Your task to perform on an android device: turn on translation in the chrome app Image 0: 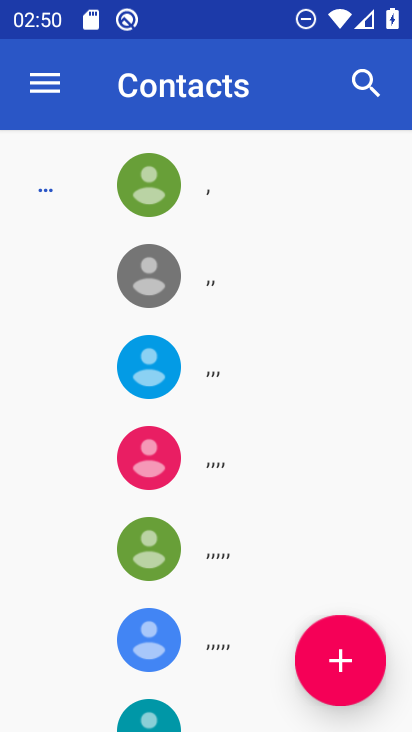
Step 0: press home button
Your task to perform on an android device: turn on translation in the chrome app Image 1: 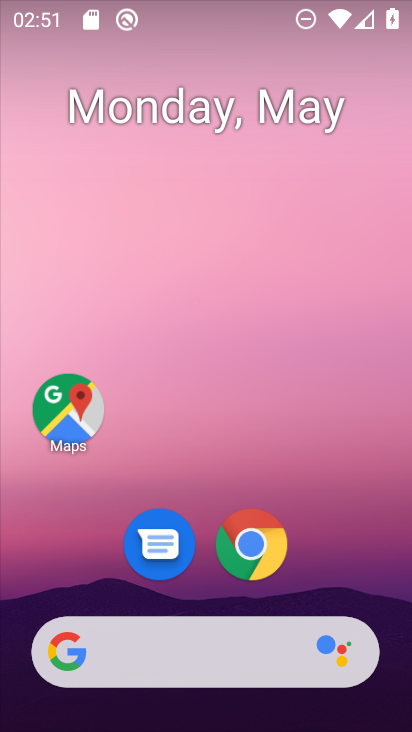
Step 1: drag from (334, 569) to (362, 103)
Your task to perform on an android device: turn on translation in the chrome app Image 2: 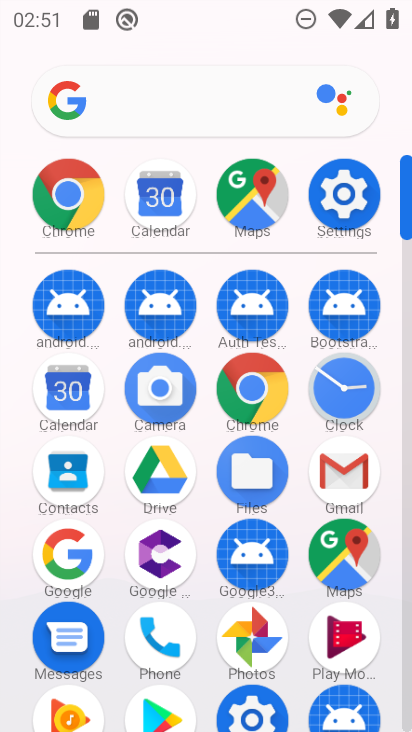
Step 2: click (265, 369)
Your task to perform on an android device: turn on translation in the chrome app Image 3: 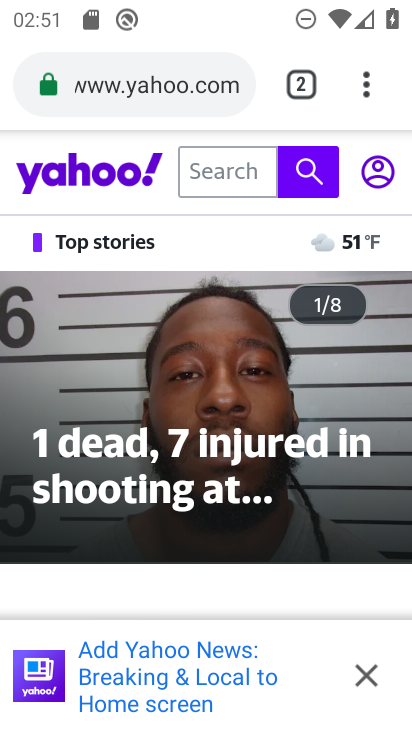
Step 3: click (366, 94)
Your task to perform on an android device: turn on translation in the chrome app Image 4: 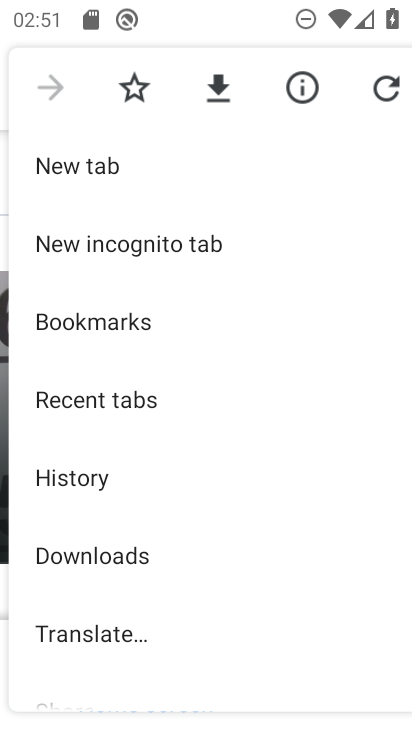
Step 4: drag from (317, 455) to (339, 350)
Your task to perform on an android device: turn on translation in the chrome app Image 5: 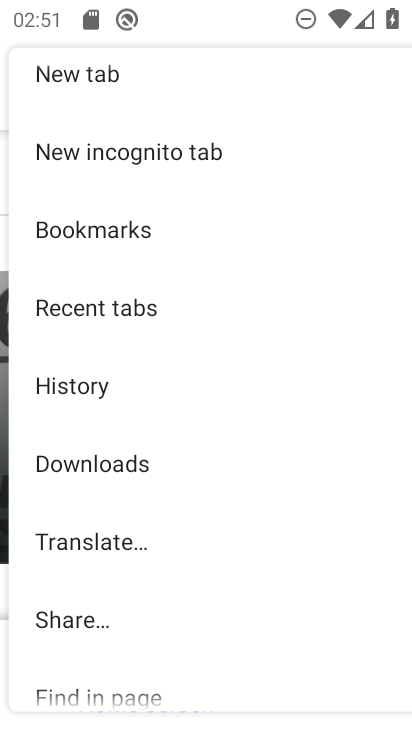
Step 5: drag from (319, 497) to (328, 355)
Your task to perform on an android device: turn on translation in the chrome app Image 6: 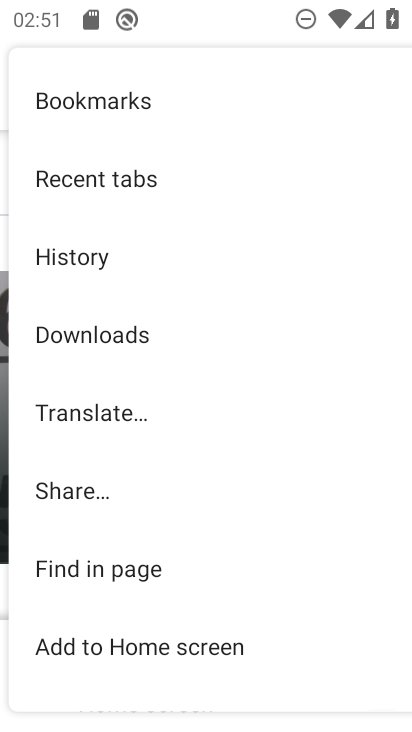
Step 6: drag from (291, 499) to (290, 359)
Your task to perform on an android device: turn on translation in the chrome app Image 7: 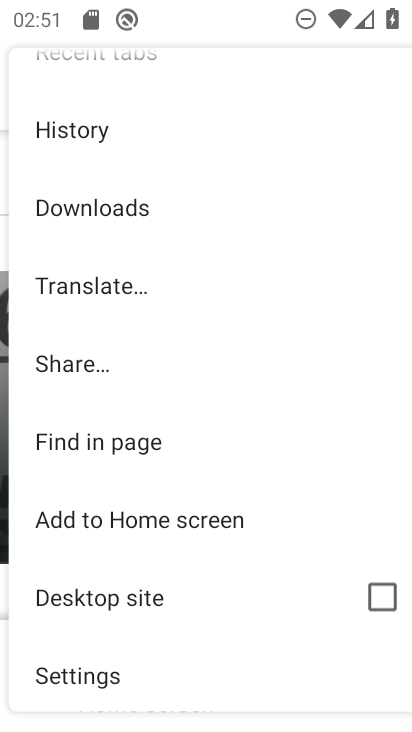
Step 7: drag from (291, 494) to (299, 262)
Your task to perform on an android device: turn on translation in the chrome app Image 8: 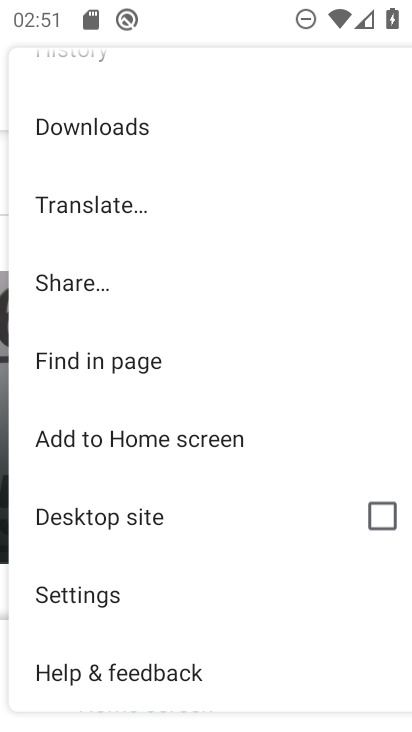
Step 8: click (102, 614)
Your task to perform on an android device: turn on translation in the chrome app Image 9: 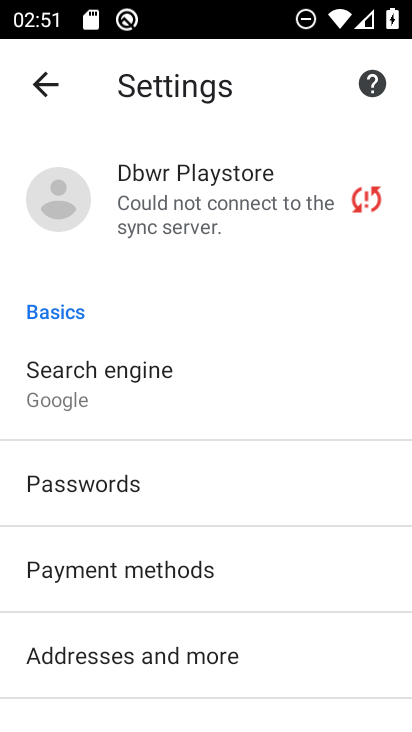
Step 9: drag from (319, 588) to (326, 448)
Your task to perform on an android device: turn on translation in the chrome app Image 10: 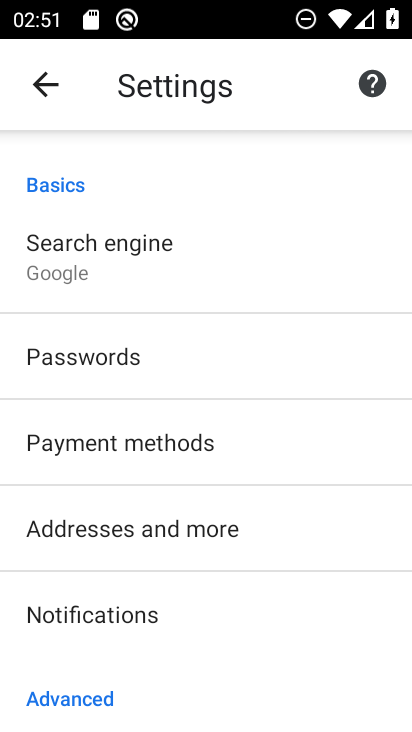
Step 10: drag from (304, 598) to (310, 494)
Your task to perform on an android device: turn on translation in the chrome app Image 11: 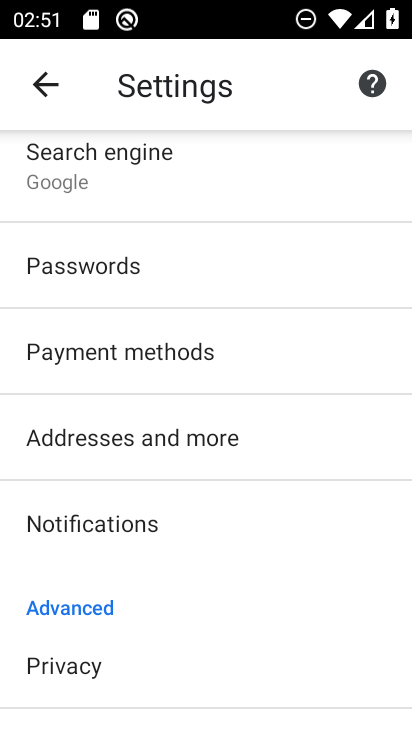
Step 11: drag from (308, 592) to (315, 497)
Your task to perform on an android device: turn on translation in the chrome app Image 12: 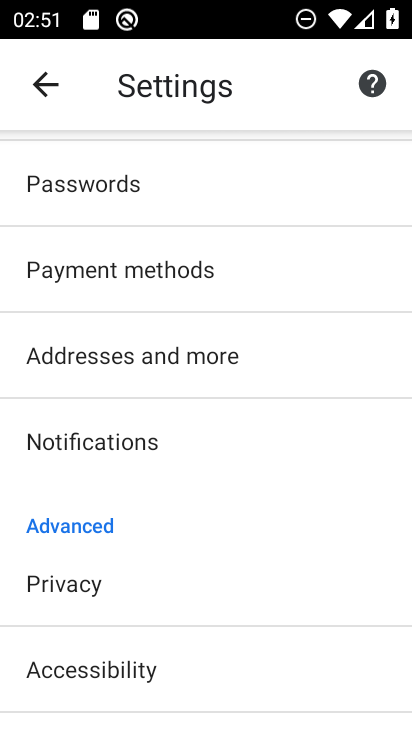
Step 12: drag from (314, 629) to (320, 514)
Your task to perform on an android device: turn on translation in the chrome app Image 13: 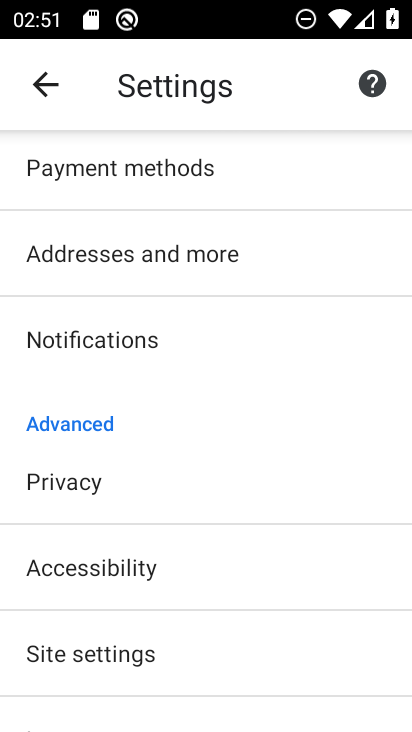
Step 13: drag from (311, 618) to (311, 518)
Your task to perform on an android device: turn on translation in the chrome app Image 14: 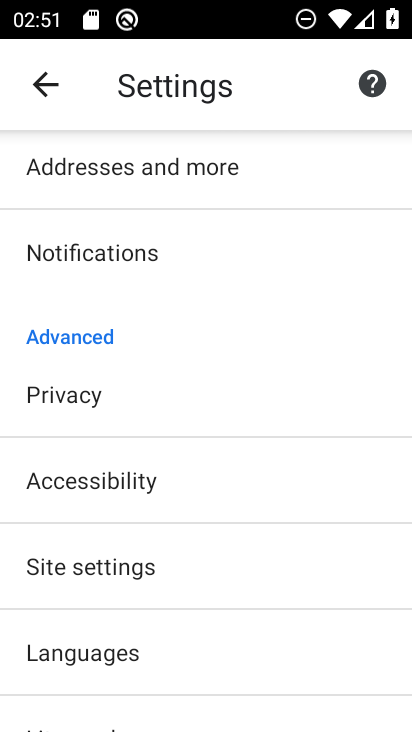
Step 14: drag from (313, 629) to (323, 461)
Your task to perform on an android device: turn on translation in the chrome app Image 15: 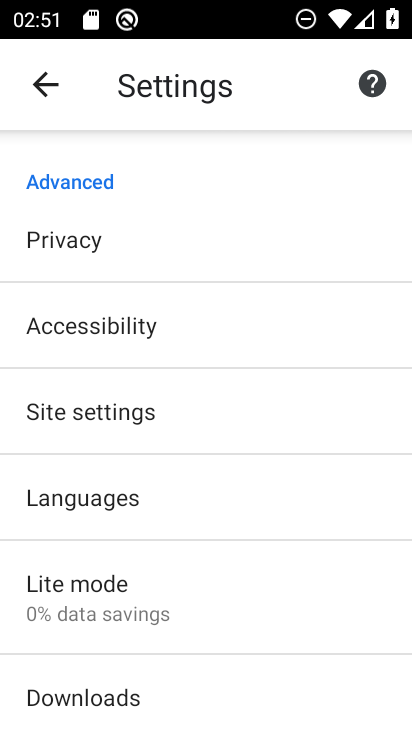
Step 15: drag from (323, 610) to (325, 480)
Your task to perform on an android device: turn on translation in the chrome app Image 16: 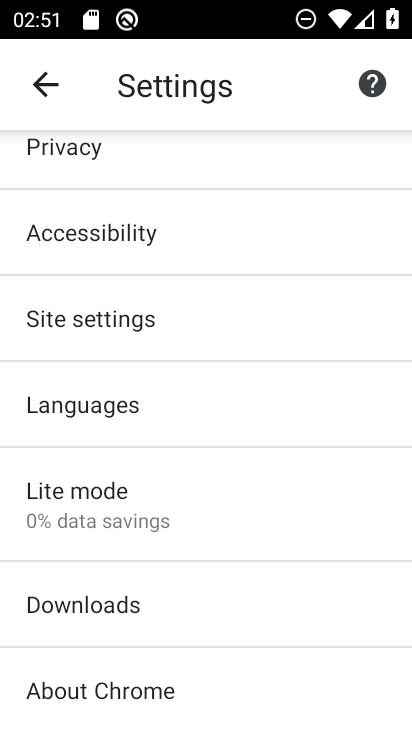
Step 16: click (199, 410)
Your task to perform on an android device: turn on translation in the chrome app Image 17: 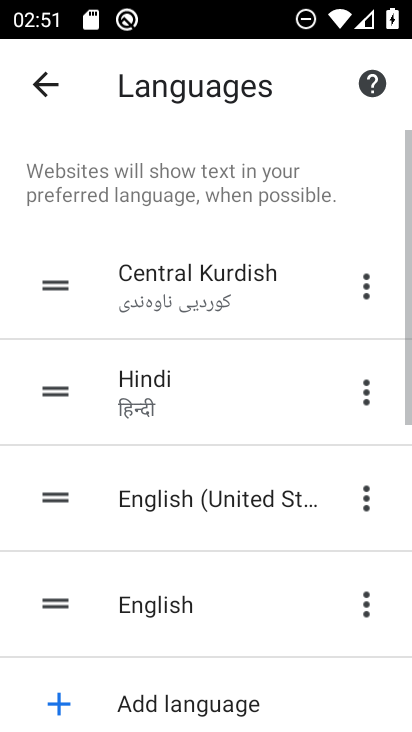
Step 17: task complete